Your task to perform on an android device: see tabs open on other devices in the chrome app Image 0: 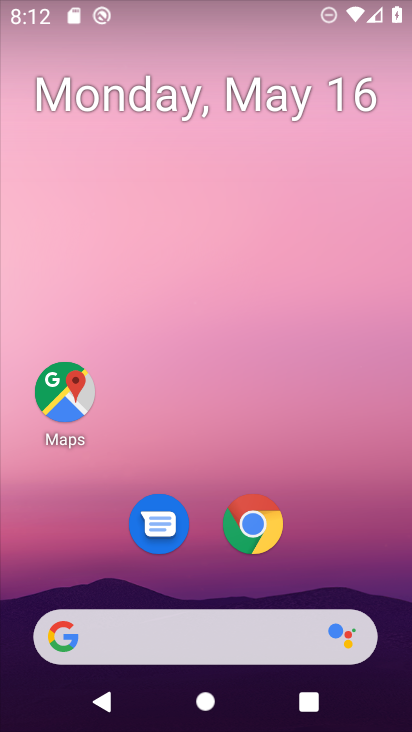
Step 0: click (249, 515)
Your task to perform on an android device: see tabs open on other devices in the chrome app Image 1: 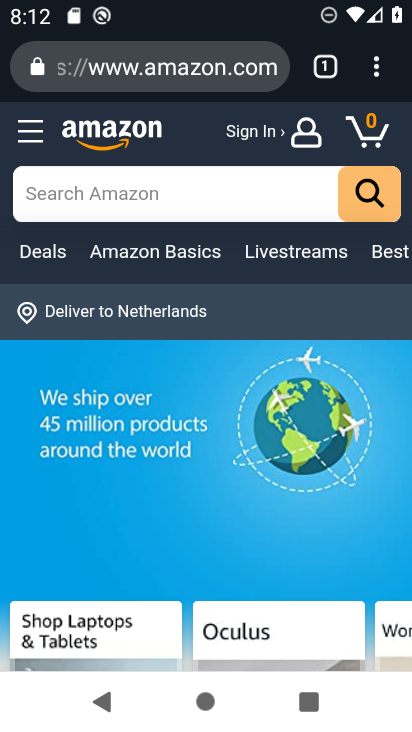
Step 1: click (369, 64)
Your task to perform on an android device: see tabs open on other devices in the chrome app Image 2: 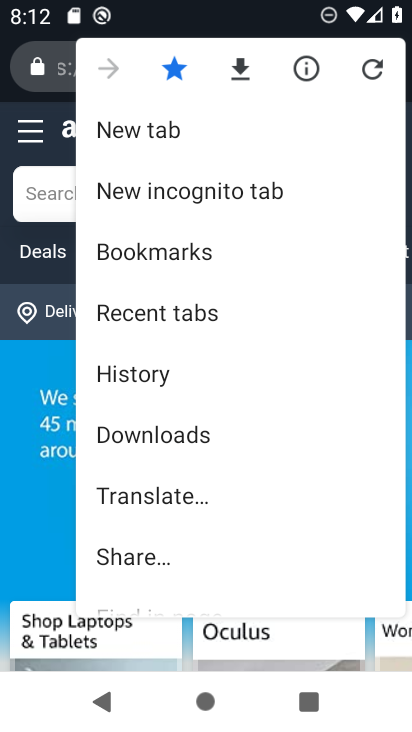
Step 2: click (180, 306)
Your task to perform on an android device: see tabs open on other devices in the chrome app Image 3: 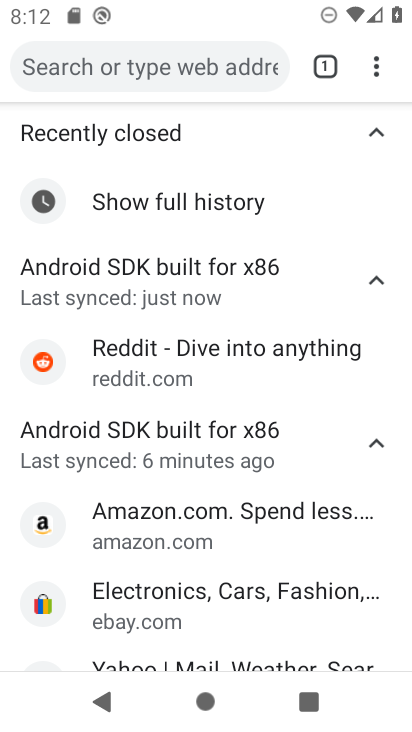
Step 3: task complete